Your task to perform on an android device: turn on bluetooth scan Image 0: 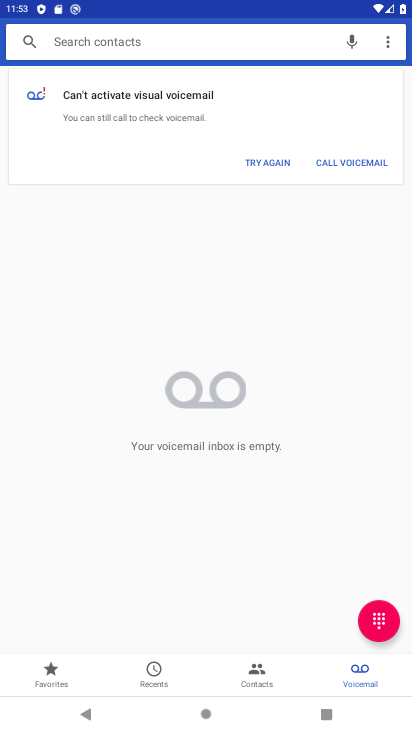
Step 0: press home button
Your task to perform on an android device: turn on bluetooth scan Image 1: 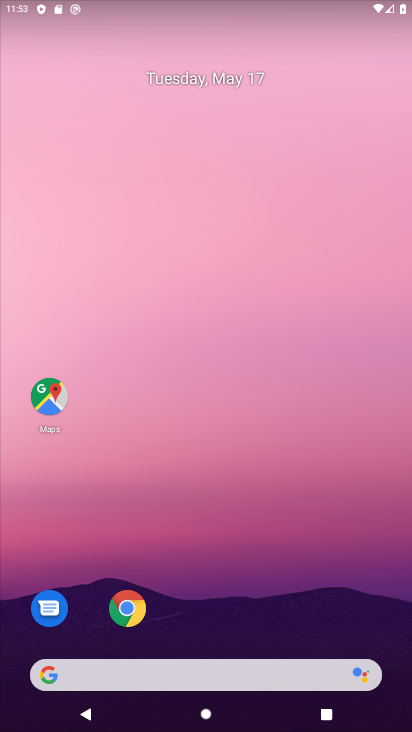
Step 1: drag from (160, 715) to (211, 240)
Your task to perform on an android device: turn on bluetooth scan Image 2: 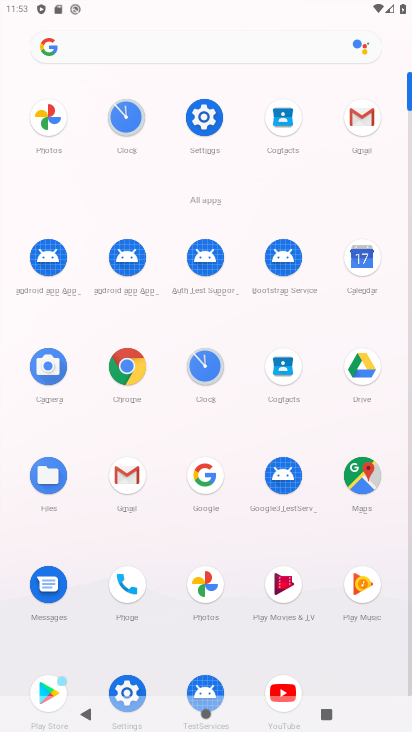
Step 2: click (222, 126)
Your task to perform on an android device: turn on bluetooth scan Image 3: 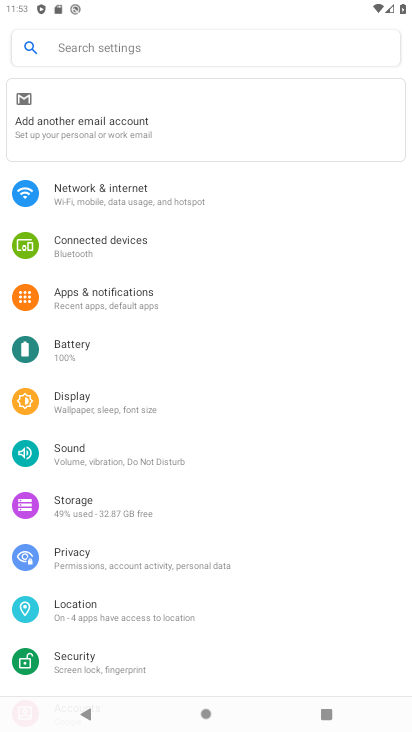
Step 3: click (138, 612)
Your task to perform on an android device: turn on bluetooth scan Image 4: 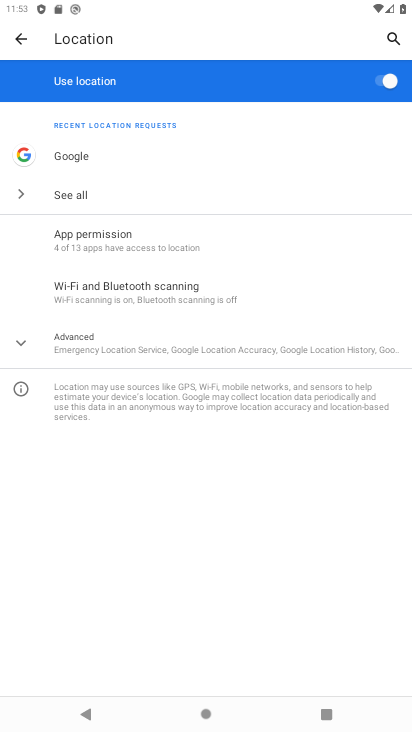
Step 4: click (116, 289)
Your task to perform on an android device: turn on bluetooth scan Image 5: 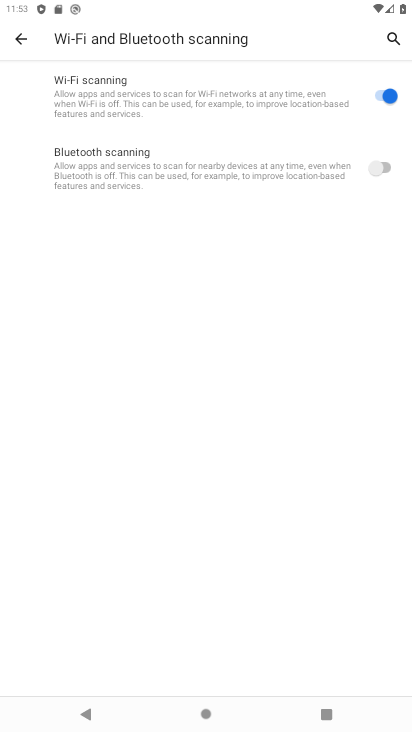
Step 5: click (381, 171)
Your task to perform on an android device: turn on bluetooth scan Image 6: 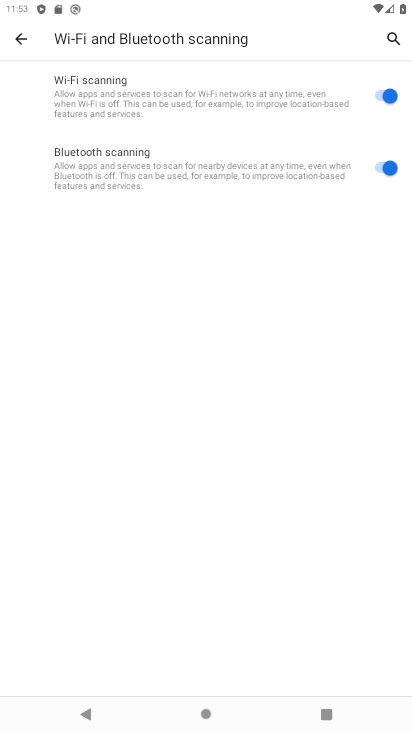
Step 6: task complete